Your task to perform on an android device: How much does a 3 bedroom apartment rent for in Chicago? Image 0: 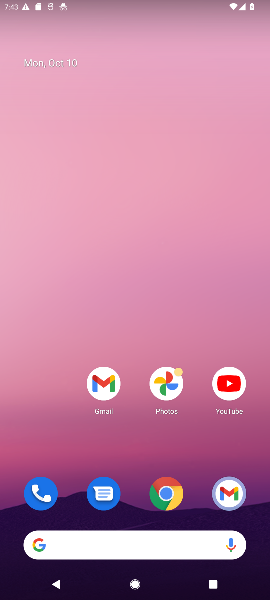
Step 0: click (138, 540)
Your task to perform on an android device: How much does a 3 bedroom apartment rent for in Chicago? Image 1: 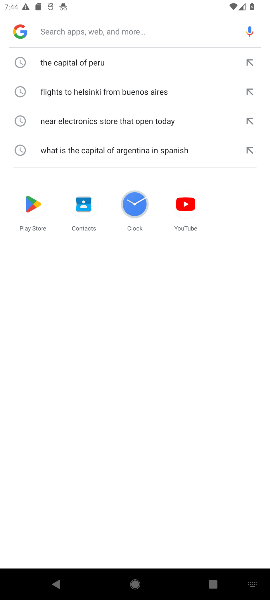
Step 1: type "How much does a 3 bedroom apartment rent for in Chicago?"
Your task to perform on an android device: How much does a 3 bedroom apartment rent for in Chicago? Image 2: 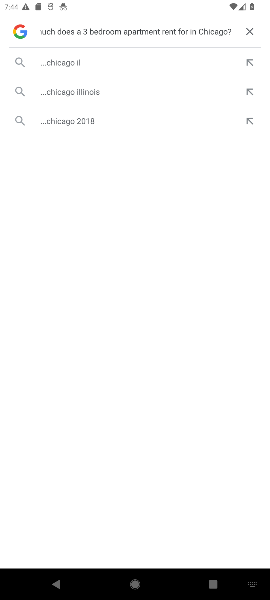
Step 2: click (58, 69)
Your task to perform on an android device: How much does a 3 bedroom apartment rent for in Chicago? Image 3: 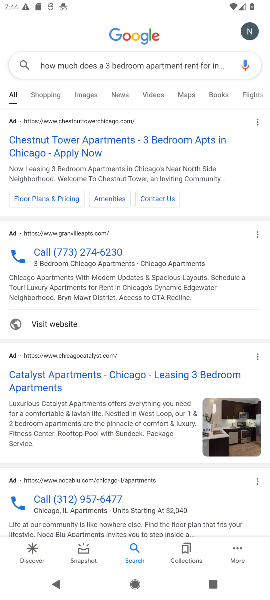
Step 3: click (119, 182)
Your task to perform on an android device: How much does a 3 bedroom apartment rent for in Chicago? Image 4: 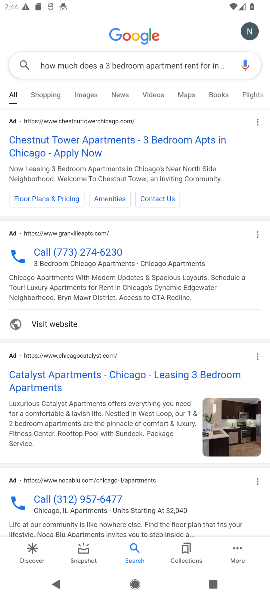
Step 4: task complete